Your task to perform on an android device: Turn off the flashlight Image 0: 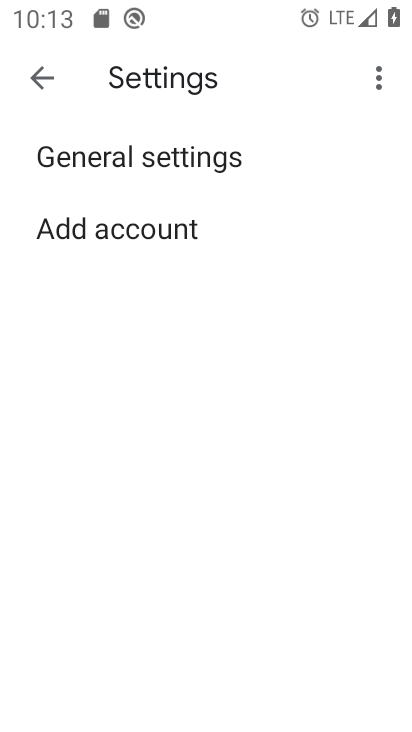
Step 0: press home button
Your task to perform on an android device: Turn off the flashlight Image 1: 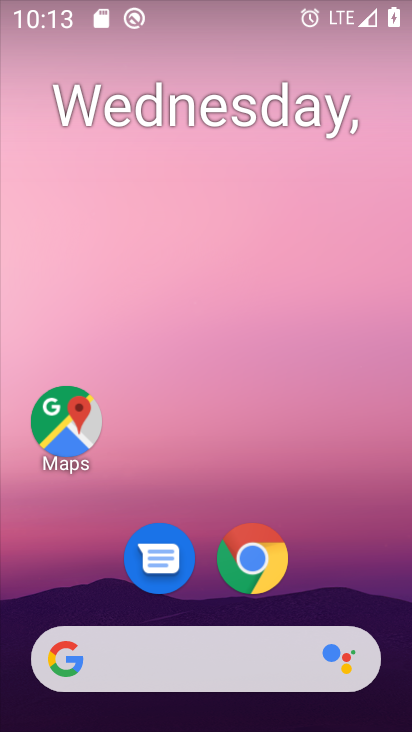
Step 1: drag from (242, 5) to (211, 336)
Your task to perform on an android device: Turn off the flashlight Image 2: 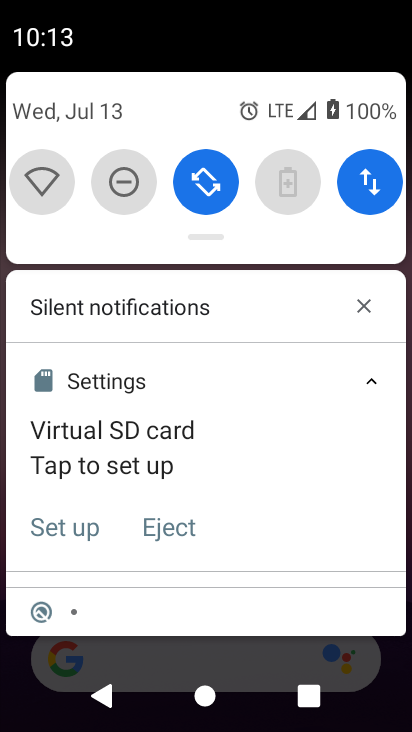
Step 2: drag from (164, 107) to (168, 397)
Your task to perform on an android device: Turn off the flashlight Image 3: 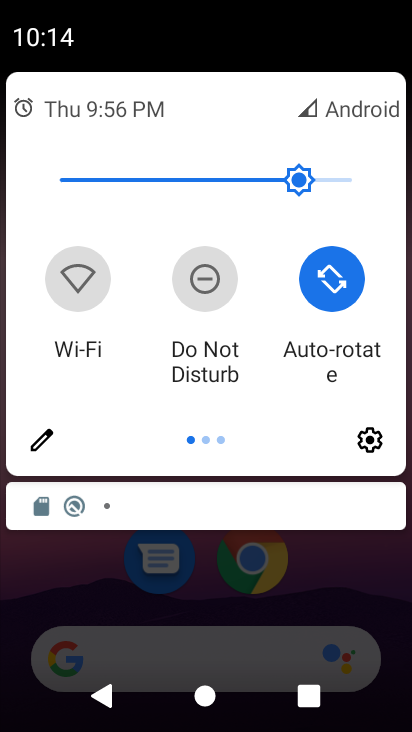
Step 3: click (53, 435)
Your task to perform on an android device: Turn off the flashlight Image 4: 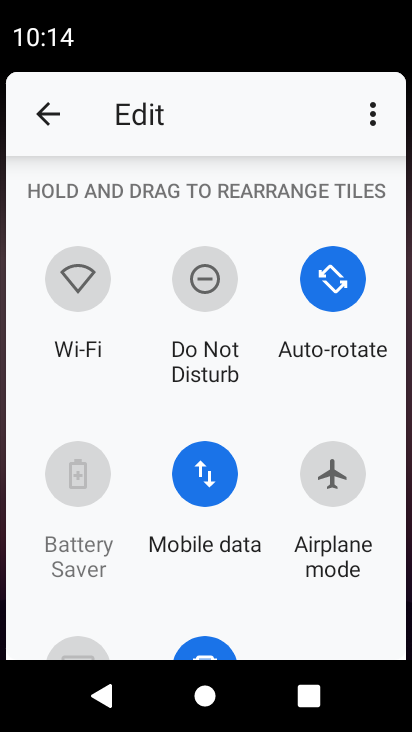
Step 4: task complete